Your task to perform on an android device: Search for usb-a on costco, select the first entry, add it to the cart, then select checkout. Image 0: 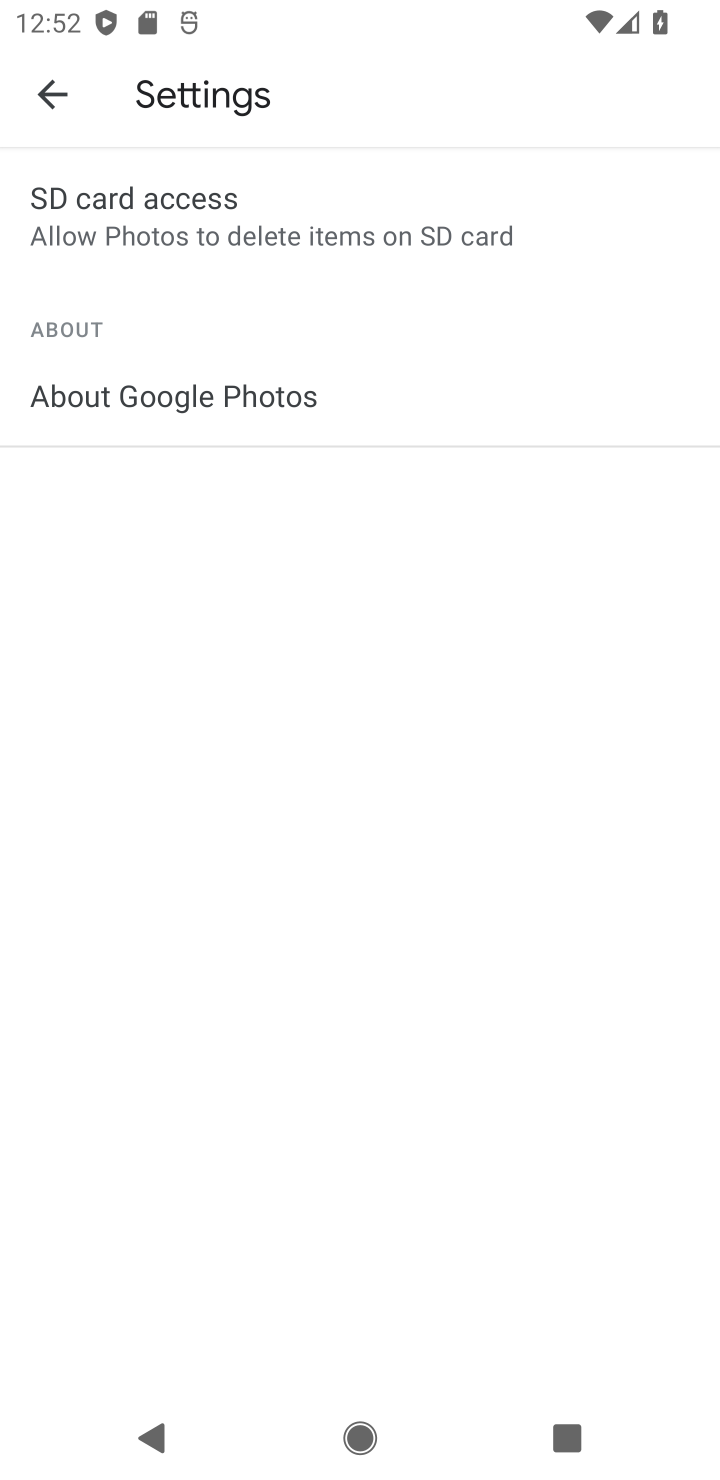
Step 0: press home button
Your task to perform on an android device: Search for usb-a on costco, select the first entry, add it to the cart, then select checkout. Image 1: 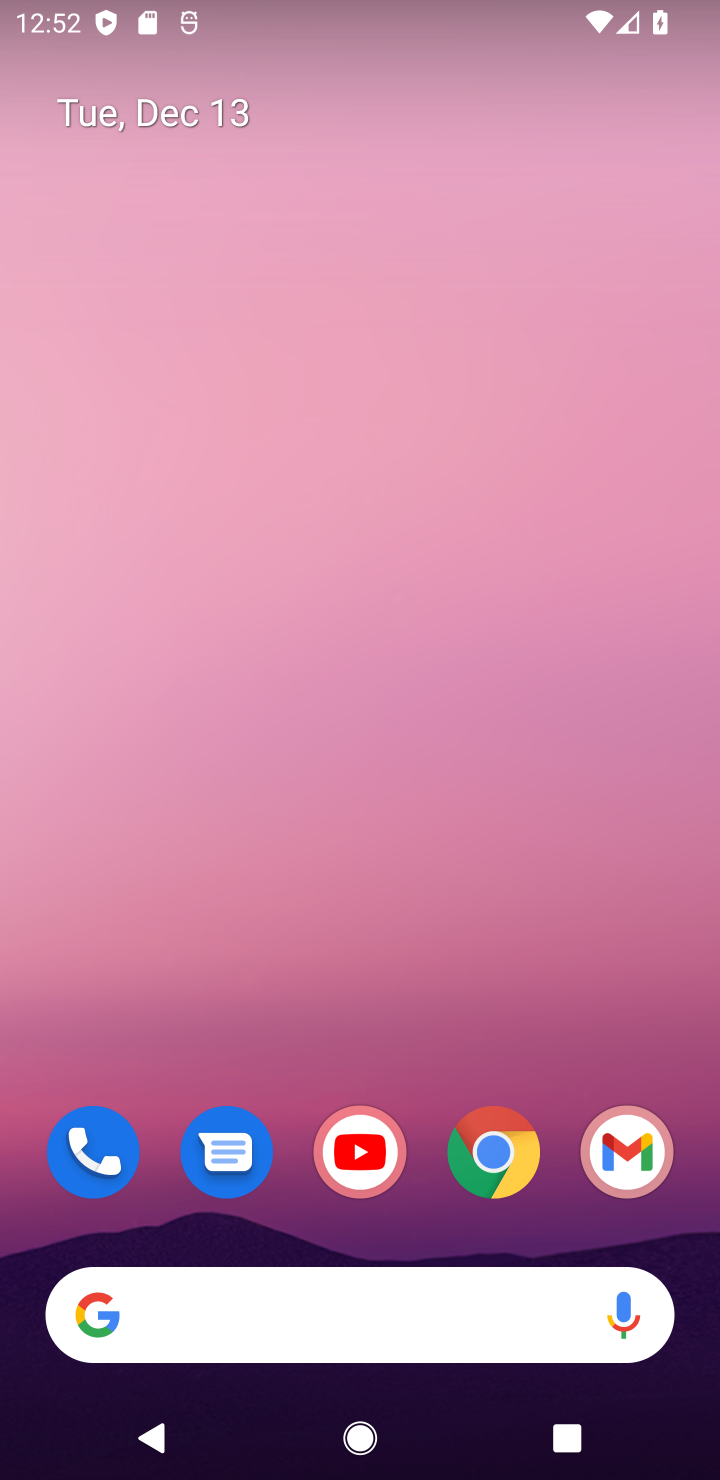
Step 1: drag from (368, 1238) to (361, 278)
Your task to perform on an android device: Search for usb-a on costco, select the first entry, add it to the cart, then select checkout. Image 2: 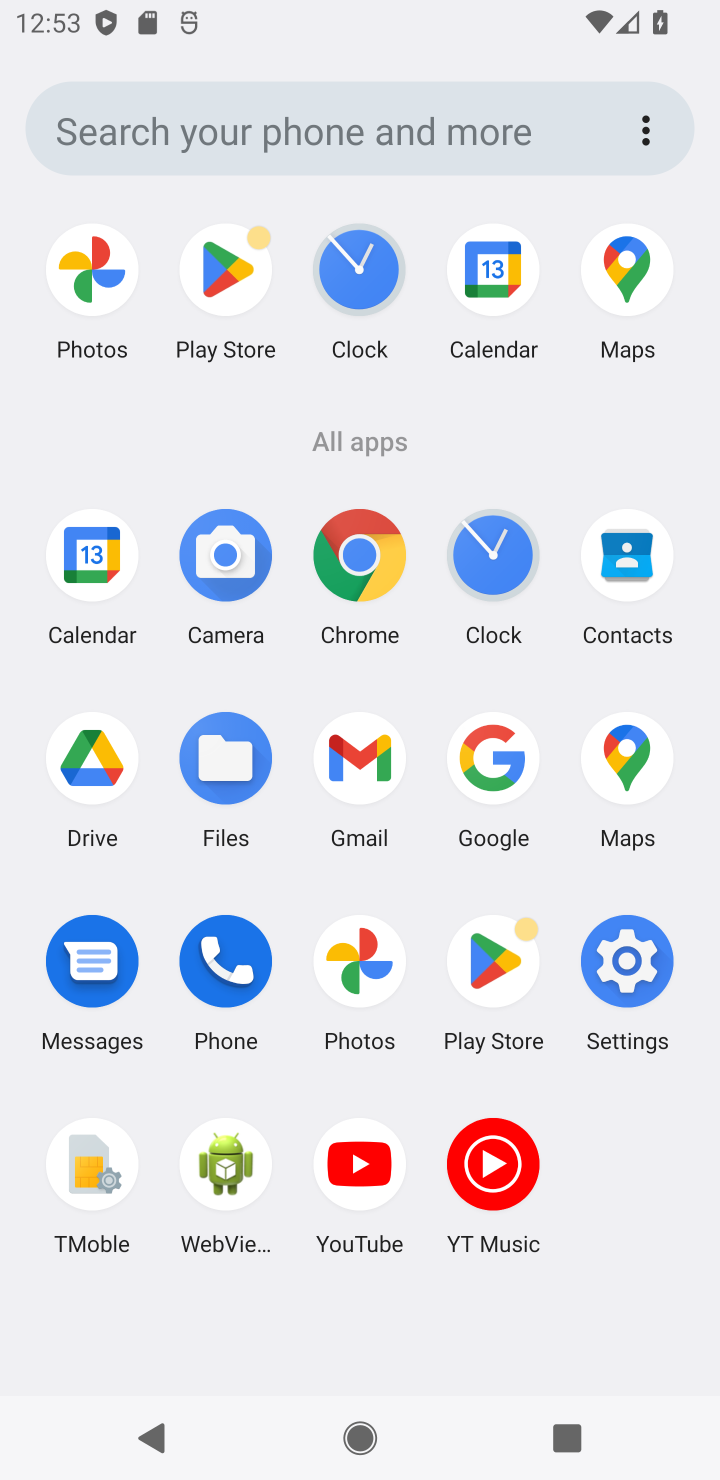
Step 2: click (482, 773)
Your task to perform on an android device: Search for usb-a on costco, select the first entry, add it to the cart, then select checkout. Image 3: 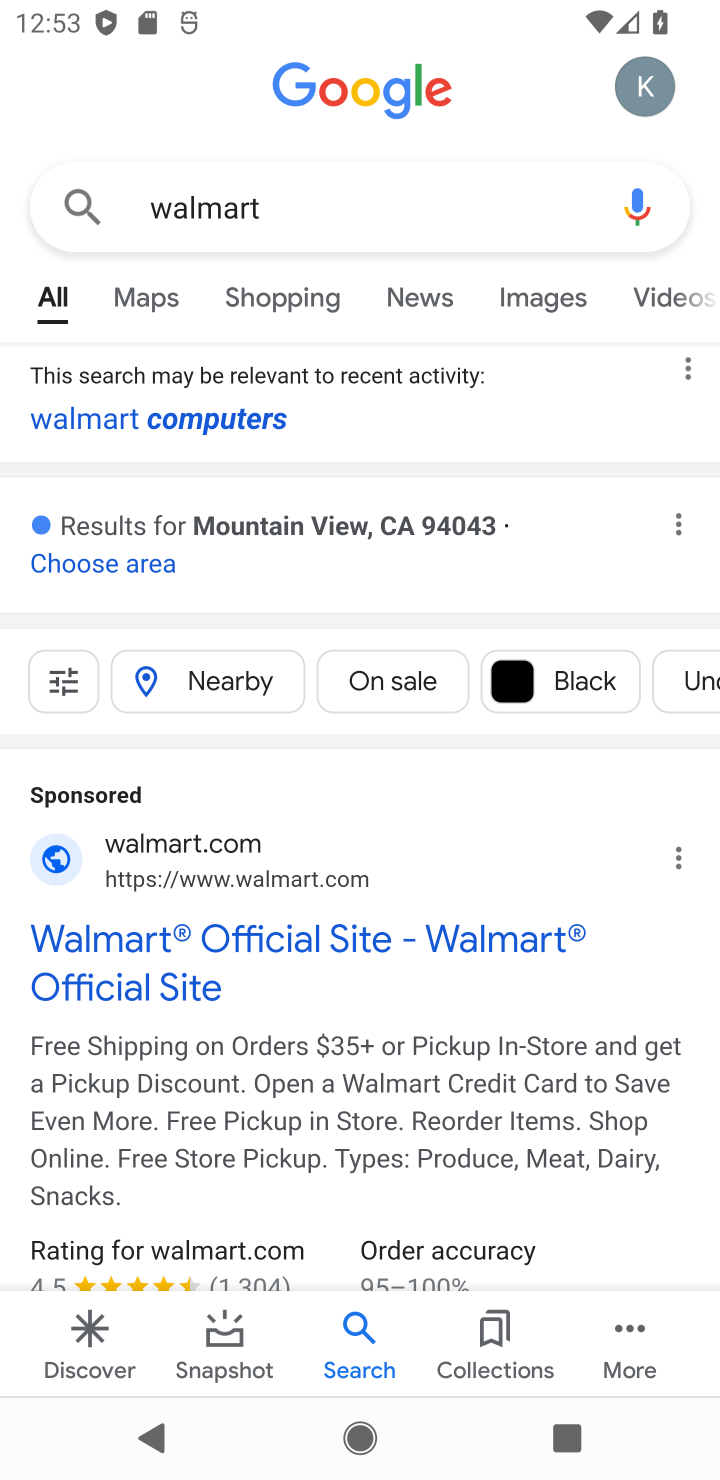
Step 3: click (195, 200)
Your task to perform on an android device: Search for usb-a on costco, select the first entry, add it to the cart, then select checkout. Image 4: 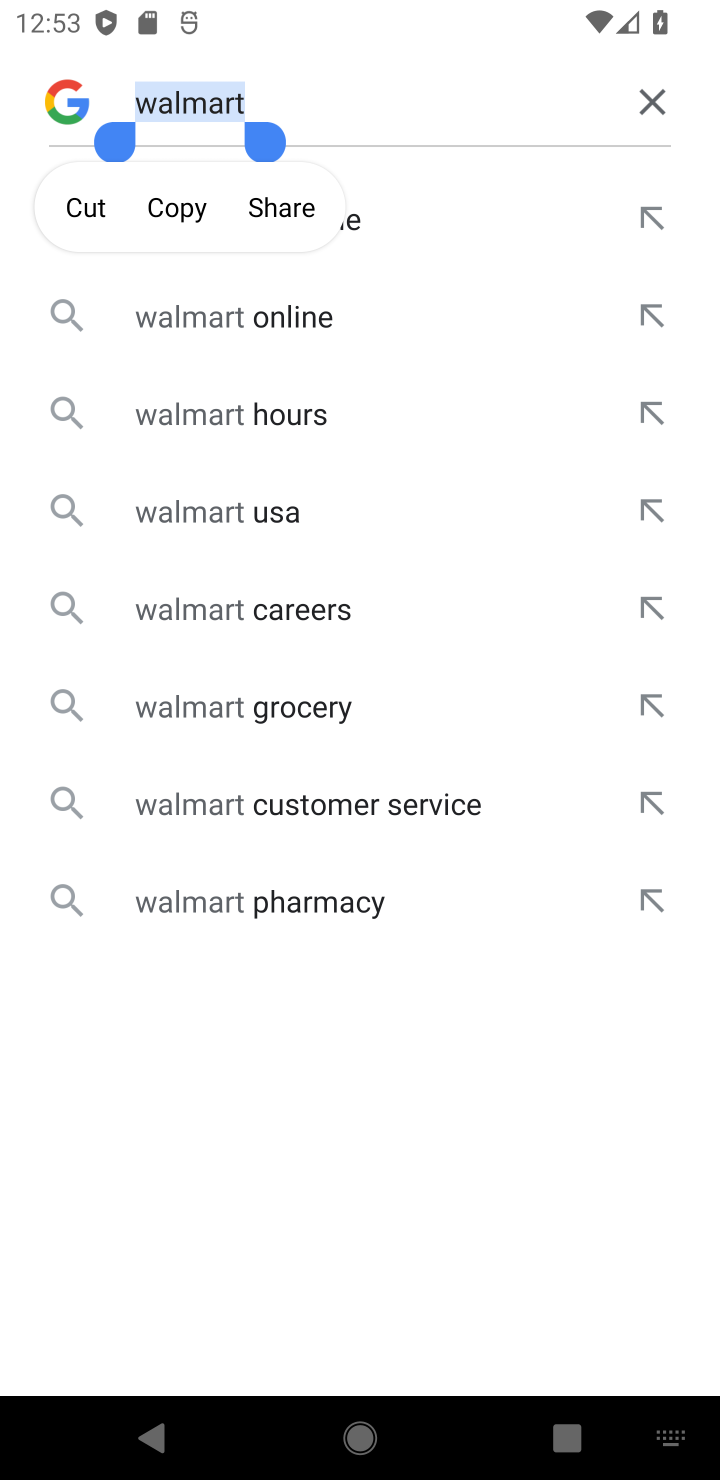
Step 4: click (653, 99)
Your task to perform on an android device: Search for usb-a on costco, select the first entry, add it to the cart, then select checkout. Image 5: 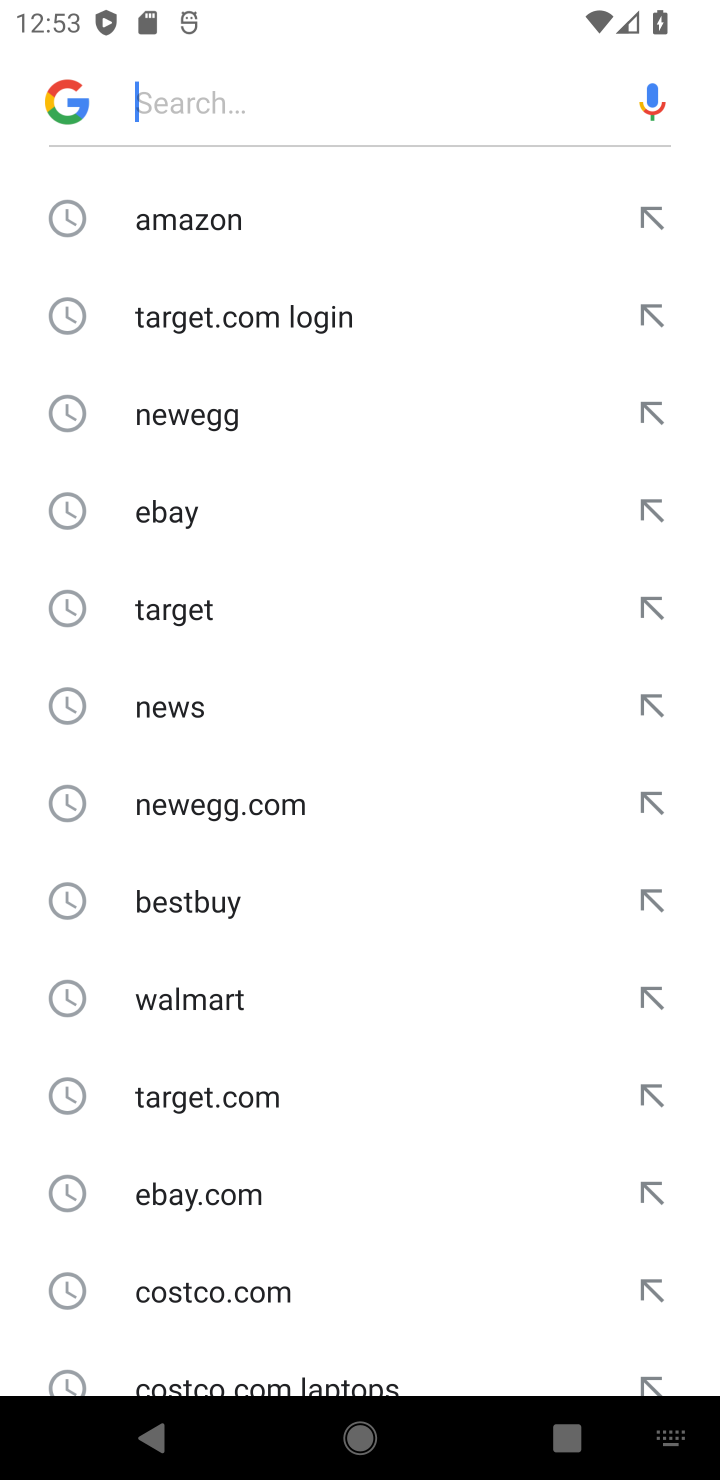
Step 5: click (186, 1291)
Your task to perform on an android device: Search for usb-a on costco, select the first entry, add it to the cart, then select checkout. Image 6: 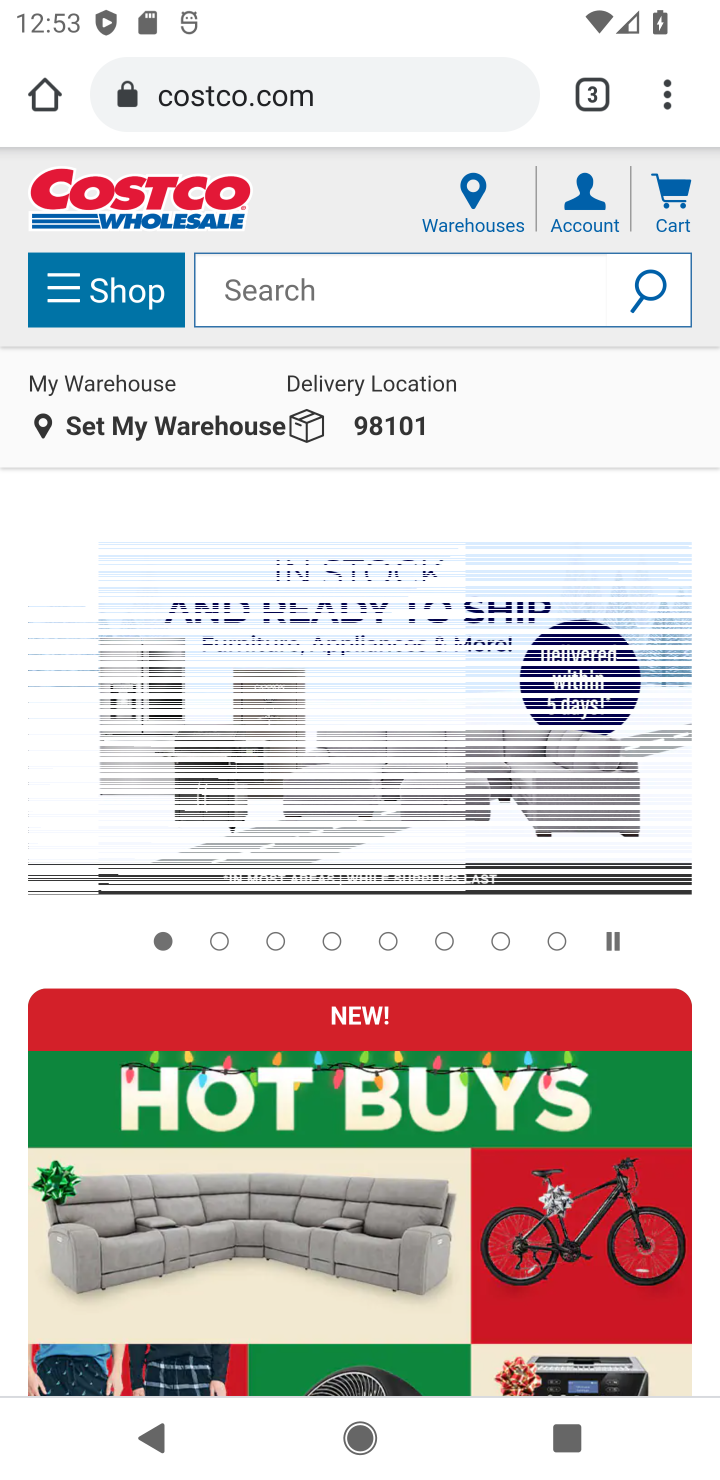
Step 6: click (360, 314)
Your task to perform on an android device: Search for usb-a on costco, select the first entry, add it to the cart, then select checkout. Image 7: 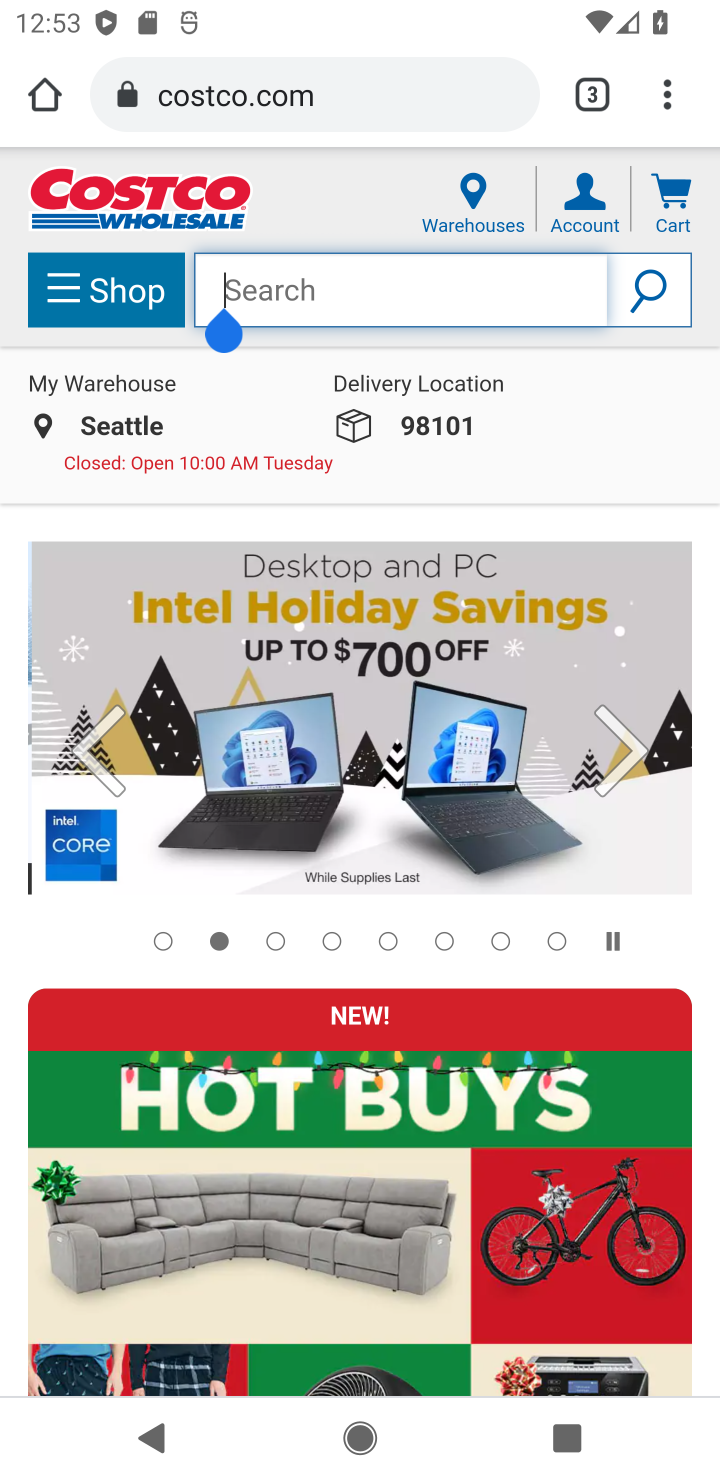
Step 7: type "usb-a"
Your task to perform on an android device: Search for usb-a on costco, select the first entry, add it to the cart, then select checkout. Image 8: 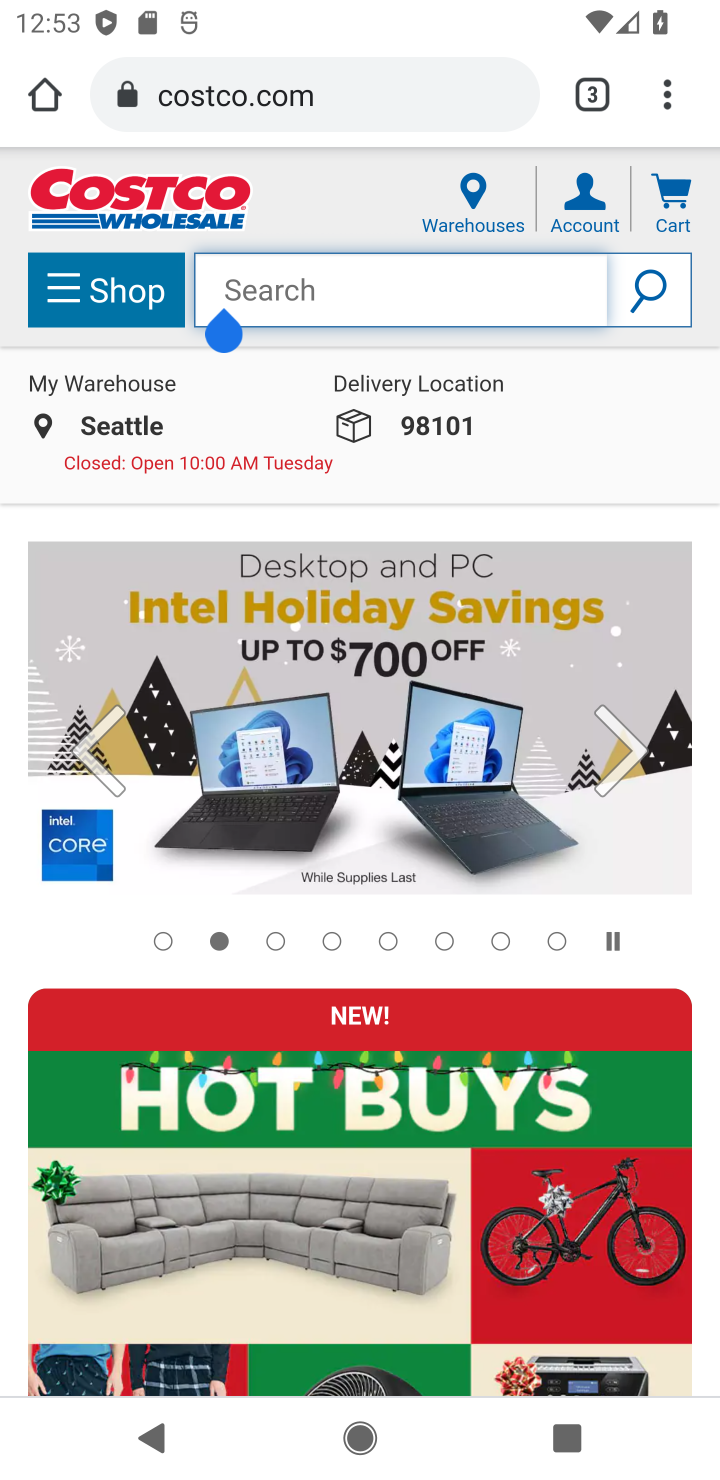
Step 8: click (636, 292)
Your task to perform on an android device: Search for usb-a on costco, select the first entry, add it to the cart, then select checkout. Image 9: 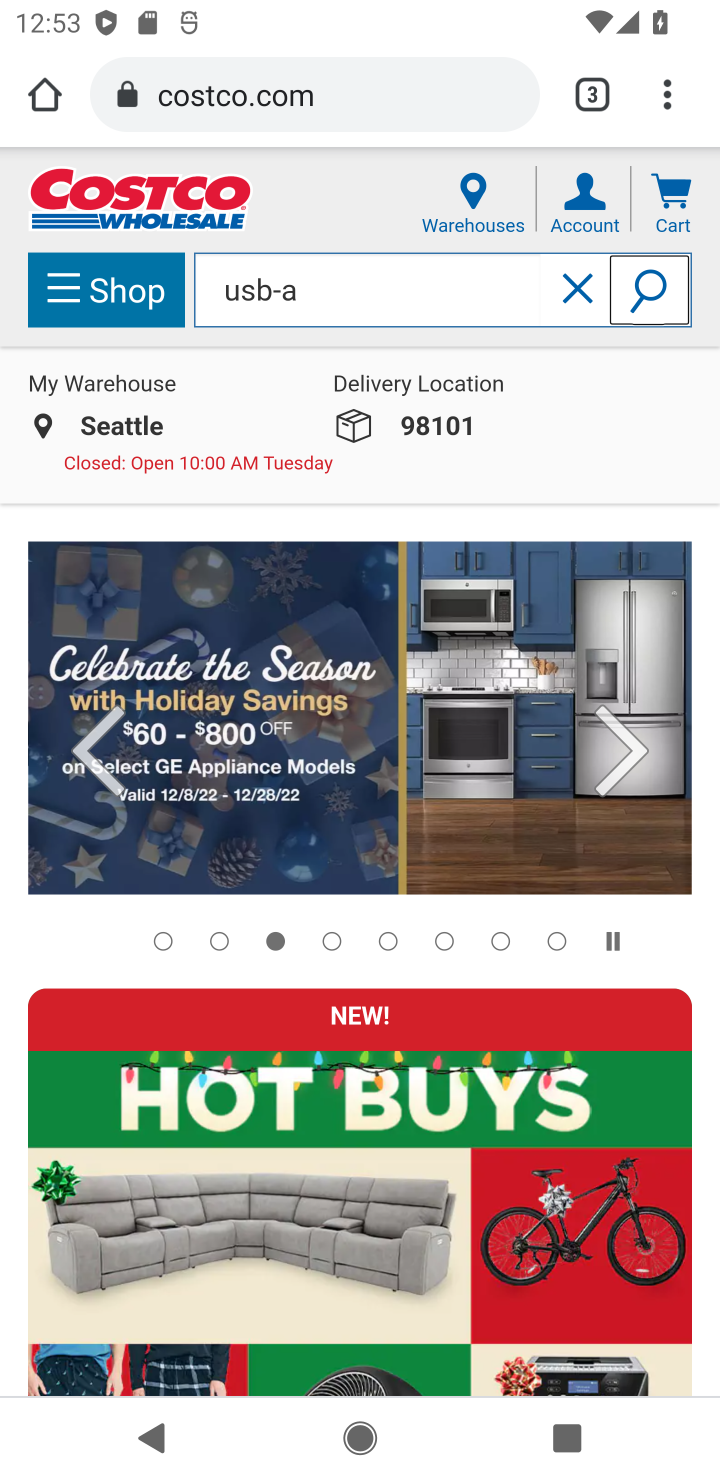
Step 9: click (654, 306)
Your task to perform on an android device: Search for usb-a on costco, select the first entry, add it to the cart, then select checkout. Image 10: 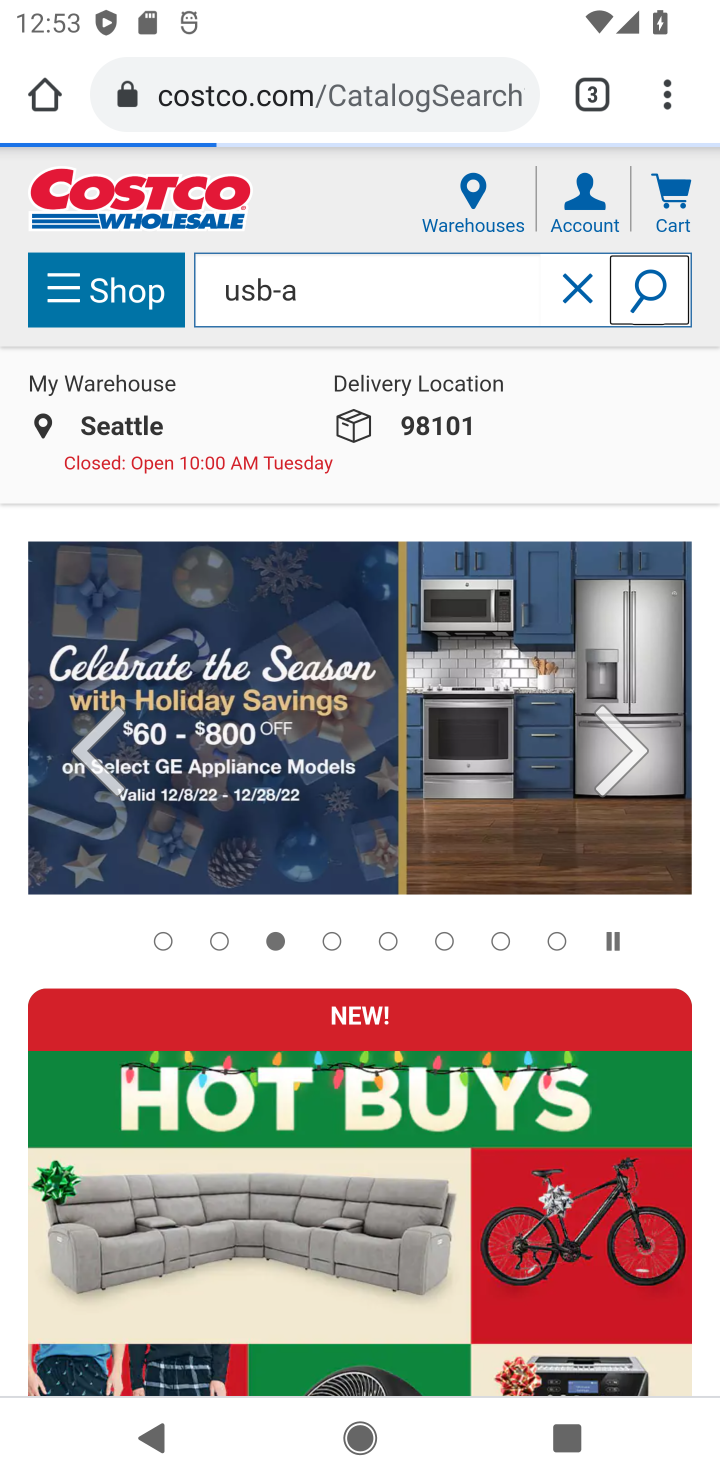
Step 10: drag from (508, 851) to (508, 340)
Your task to perform on an android device: Search for usb-a on costco, select the first entry, add it to the cart, then select checkout. Image 11: 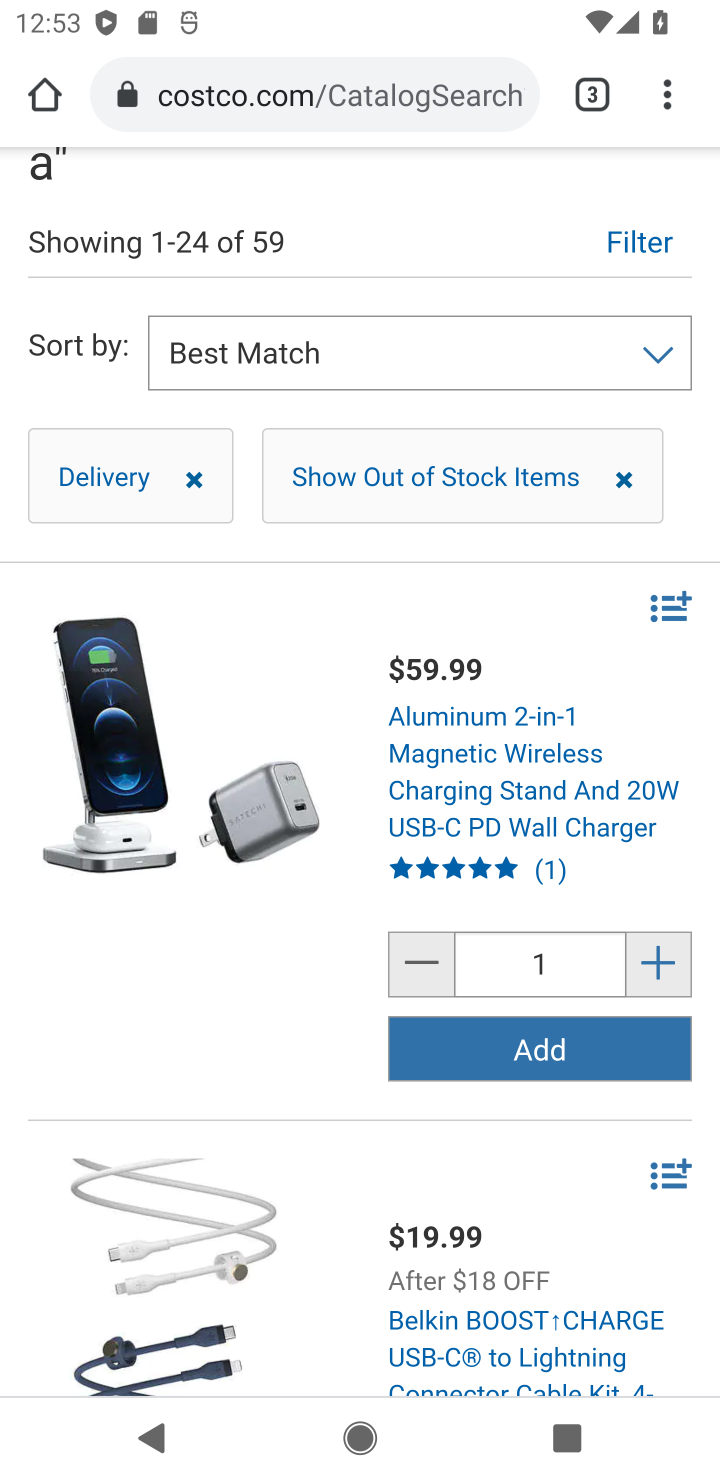
Step 11: click (505, 1048)
Your task to perform on an android device: Search for usb-a on costco, select the first entry, add it to the cart, then select checkout. Image 12: 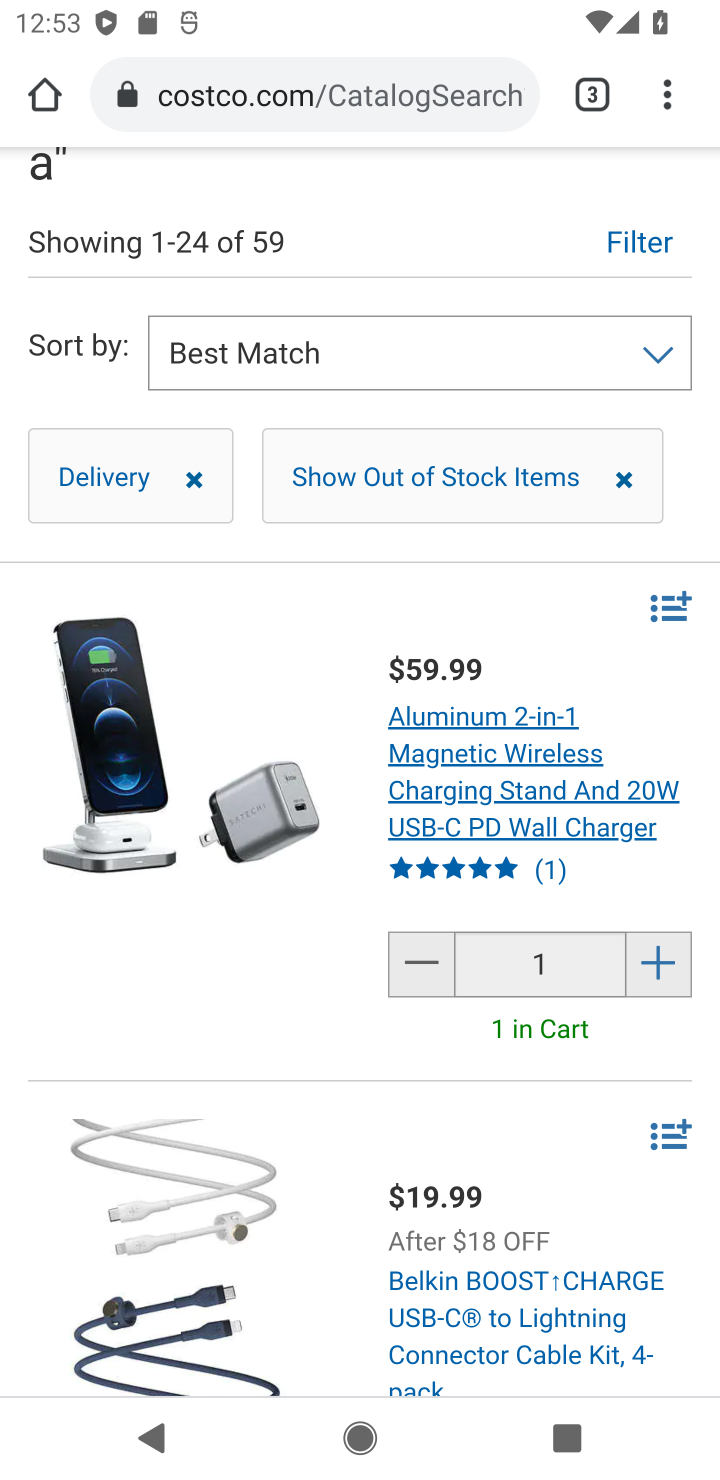
Step 12: drag from (482, 363) to (480, 955)
Your task to perform on an android device: Search for usb-a on costco, select the first entry, add it to the cart, then select checkout. Image 13: 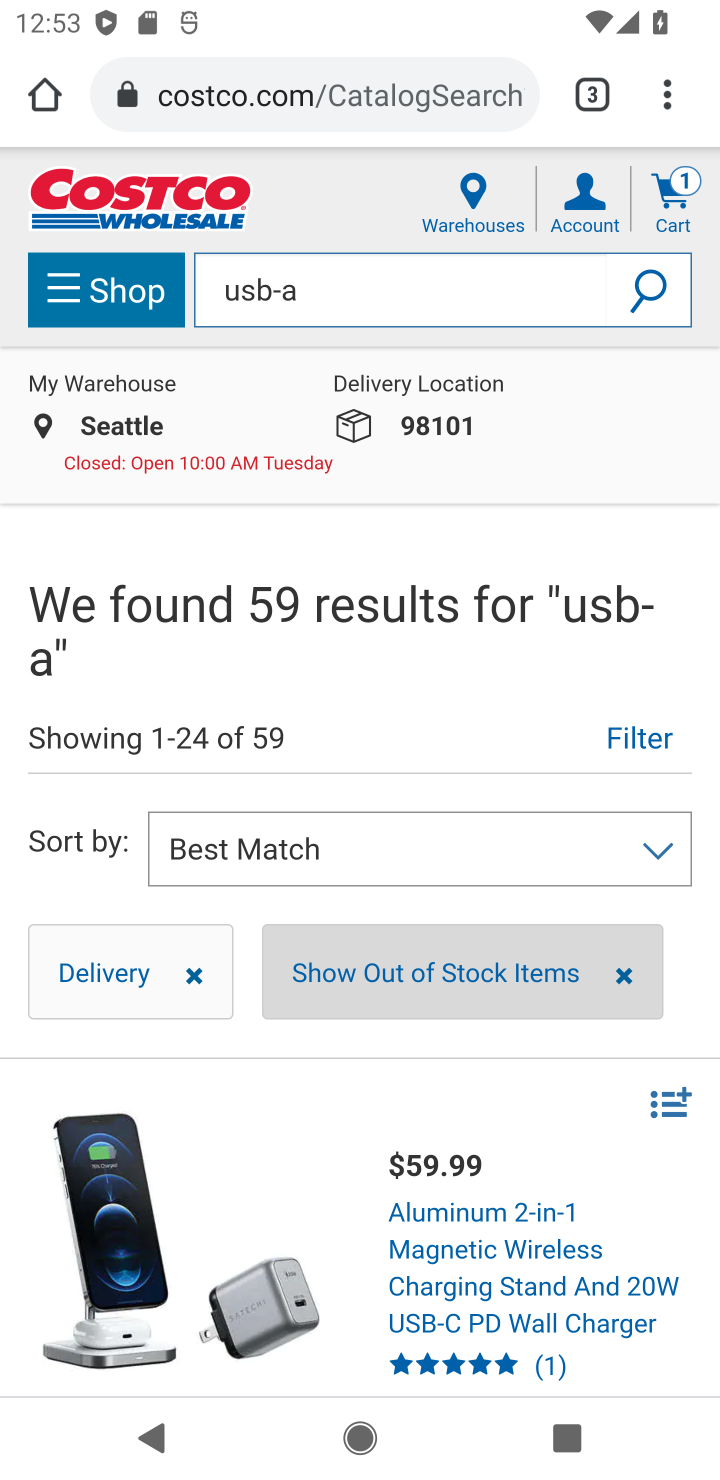
Step 13: click (663, 193)
Your task to perform on an android device: Search for usb-a on costco, select the first entry, add it to the cart, then select checkout. Image 14: 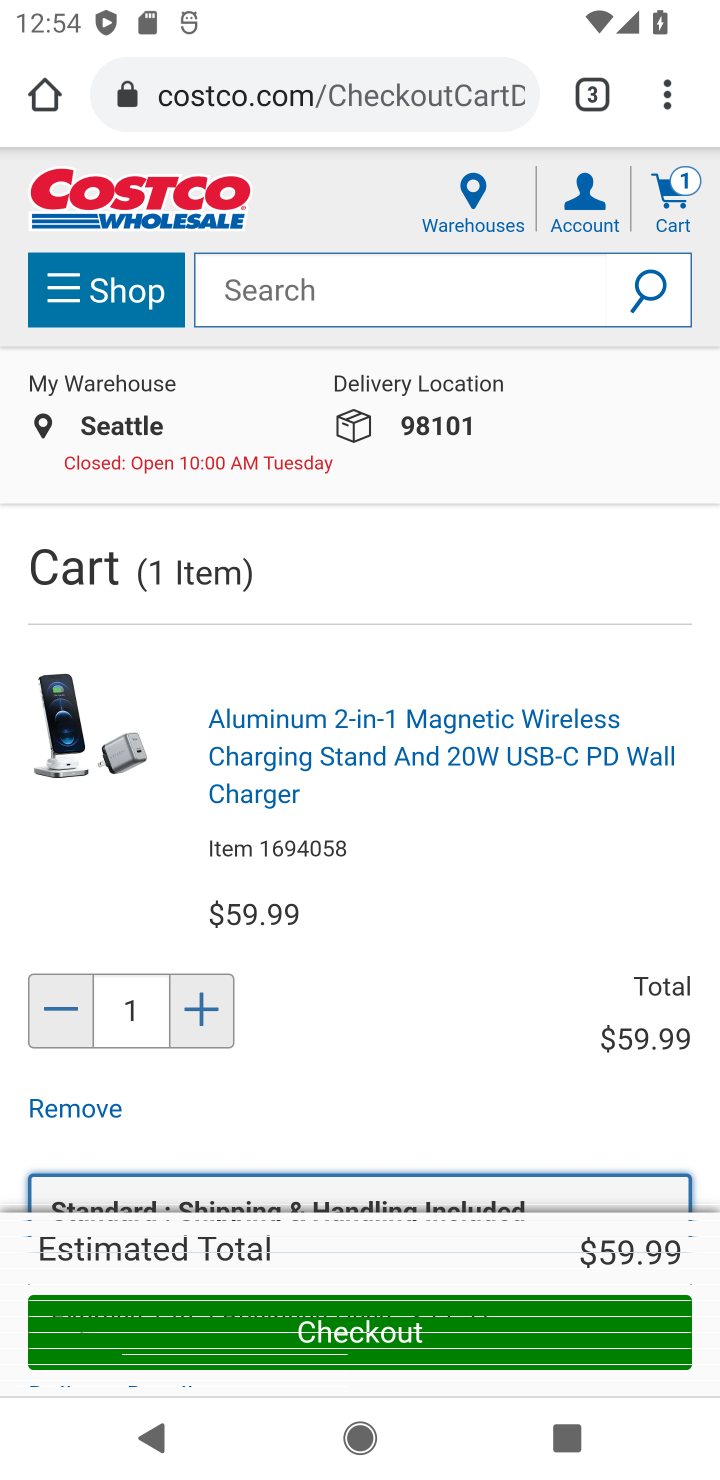
Step 14: click (291, 1342)
Your task to perform on an android device: Search for usb-a on costco, select the first entry, add it to the cart, then select checkout. Image 15: 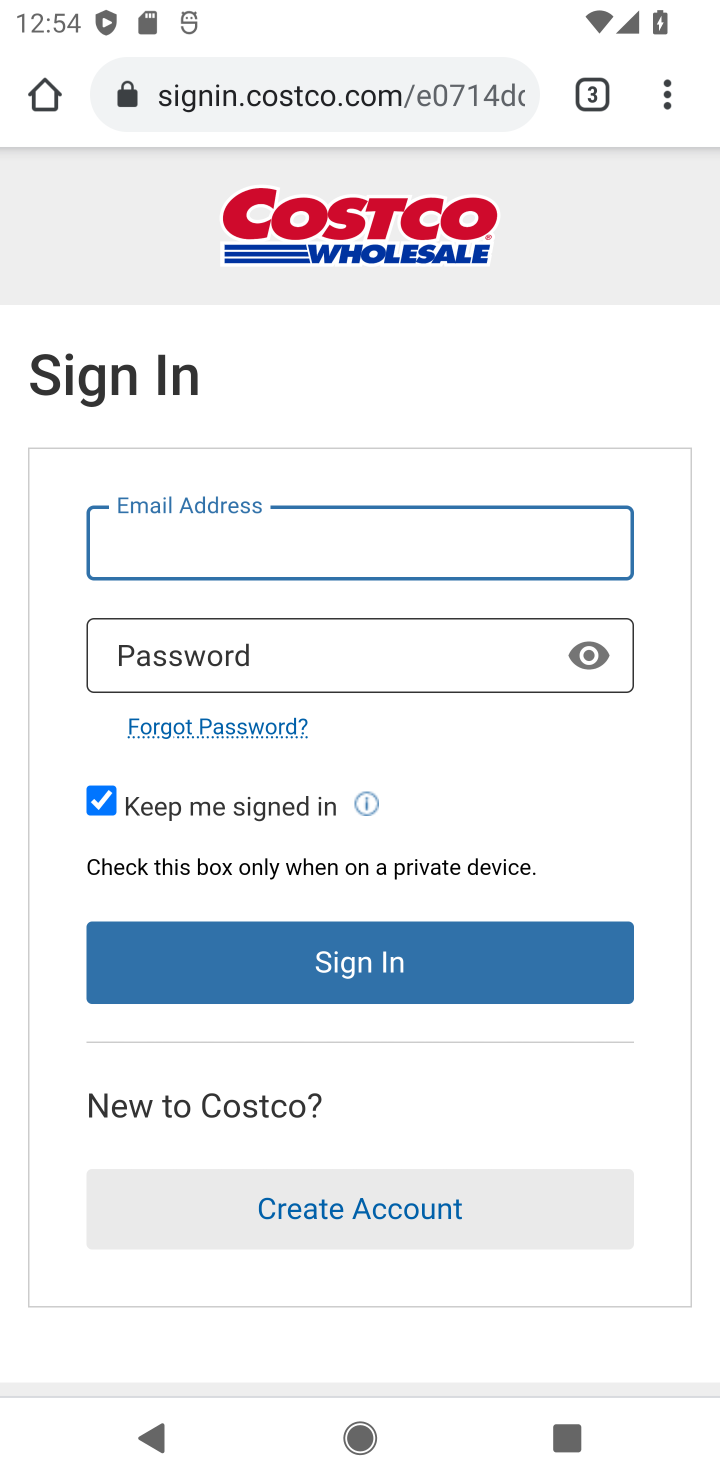
Step 15: task complete